Your task to perform on an android device: search for starred emails in the gmail app Image 0: 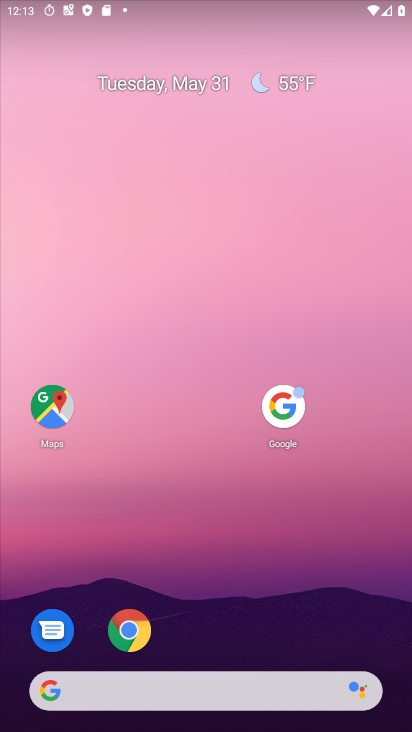
Step 0: press home button
Your task to perform on an android device: search for starred emails in the gmail app Image 1: 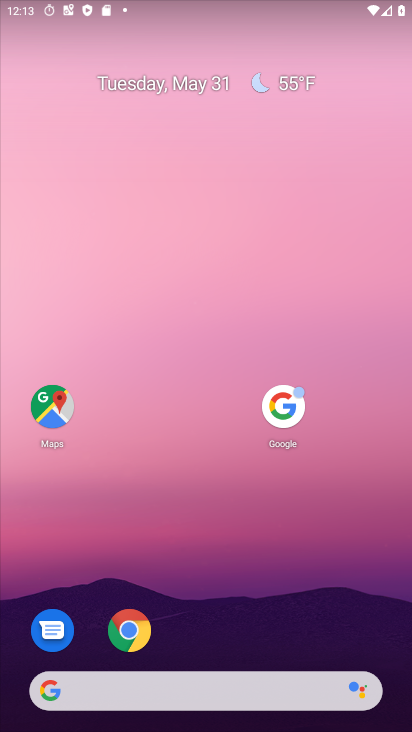
Step 1: drag from (166, 692) to (320, 176)
Your task to perform on an android device: search for starred emails in the gmail app Image 2: 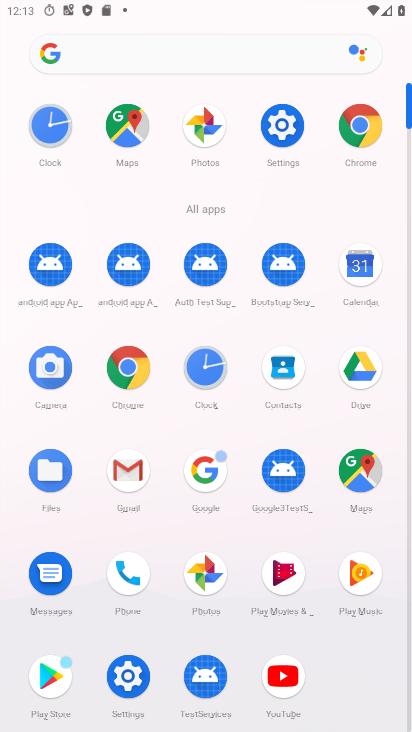
Step 2: click (128, 478)
Your task to perform on an android device: search for starred emails in the gmail app Image 3: 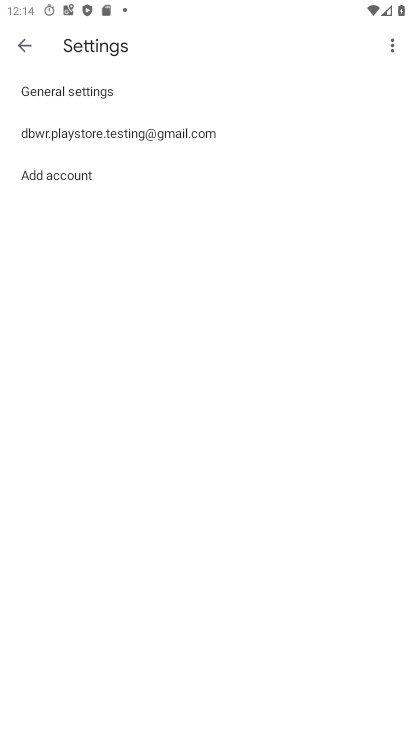
Step 3: click (28, 50)
Your task to perform on an android device: search for starred emails in the gmail app Image 4: 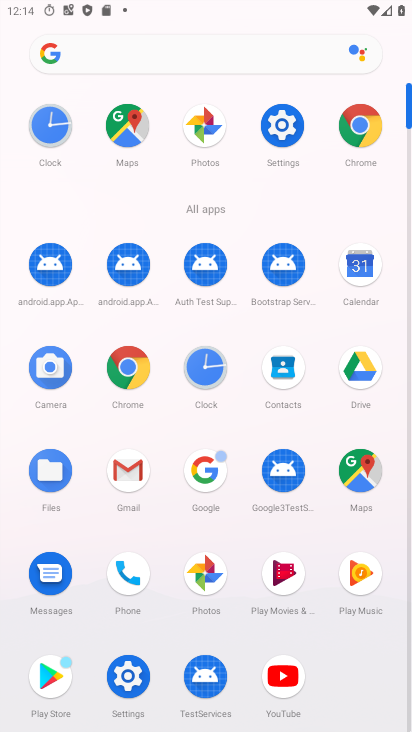
Step 4: click (134, 481)
Your task to perform on an android device: search for starred emails in the gmail app Image 5: 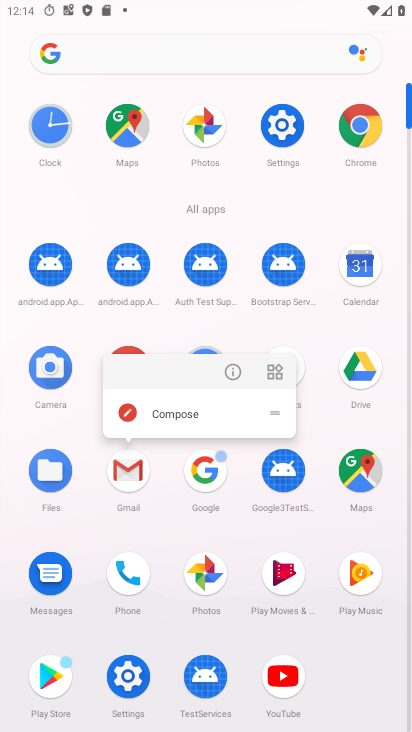
Step 5: click (121, 478)
Your task to perform on an android device: search for starred emails in the gmail app Image 6: 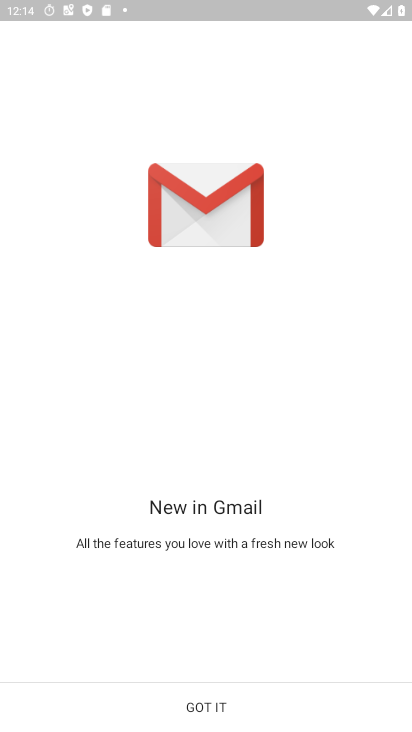
Step 6: click (201, 695)
Your task to perform on an android device: search for starred emails in the gmail app Image 7: 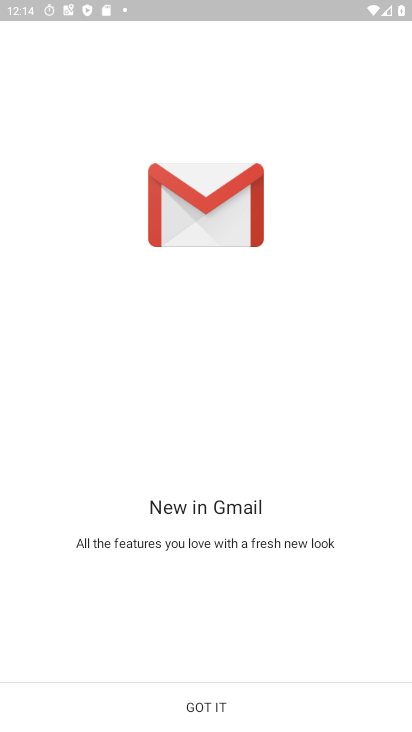
Step 7: click (201, 695)
Your task to perform on an android device: search for starred emails in the gmail app Image 8: 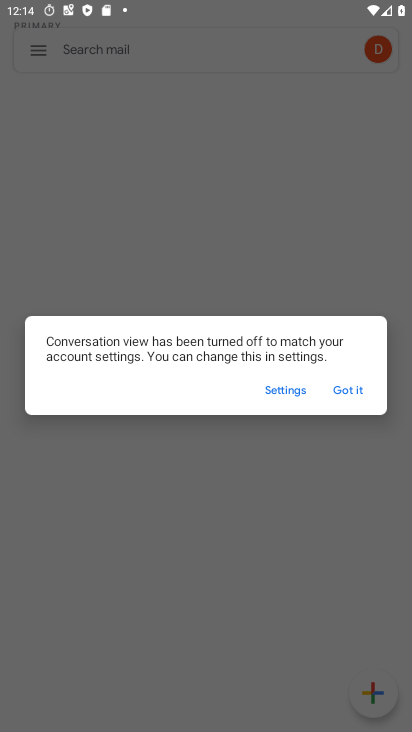
Step 8: click (361, 388)
Your task to perform on an android device: search for starred emails in the gmail app Image 9: 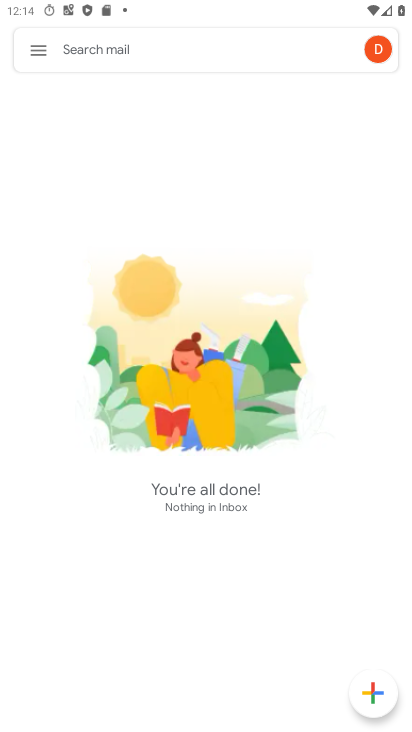
Step 9: click (34, 45)
Your task to perform on an android device: search for starred emails in the gmail app Image 10: 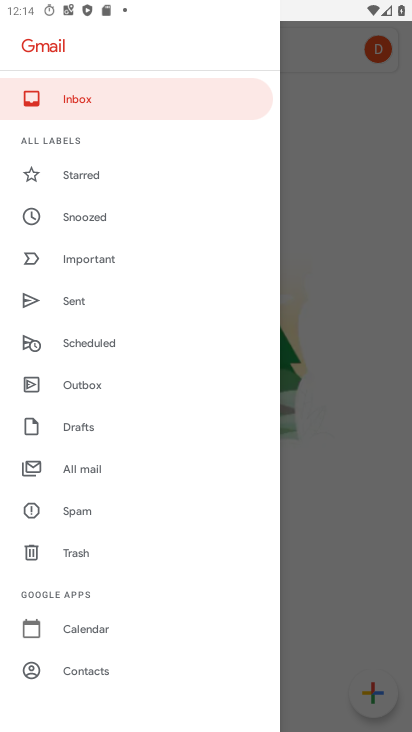
Step 10: click (88, 172)
Your task to perform on an android device: search for starred emails in the gmail app Image 11: 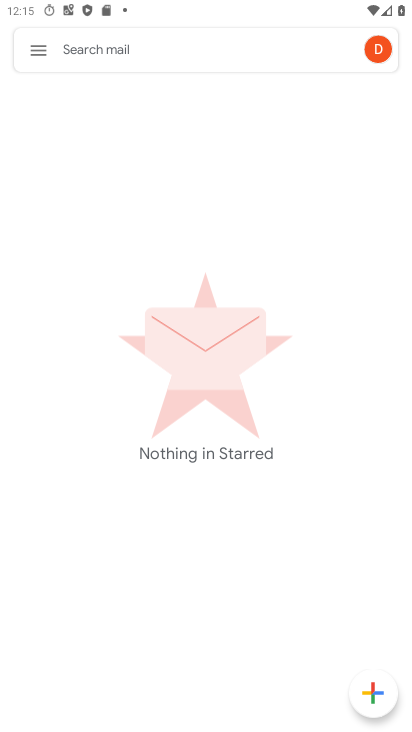
Step 11: task complete